Your task to perform on an android device: Go to display settings Image 0: 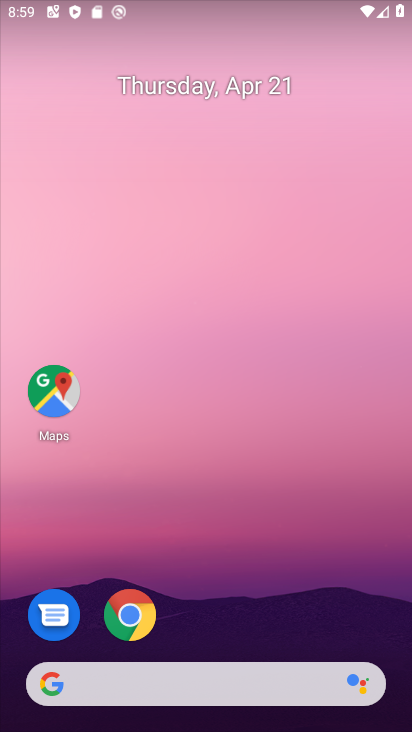
Step 0: drag from (202, 725) to (202, 174)
Your task to perform on an android device: Go to display settings Image 1: 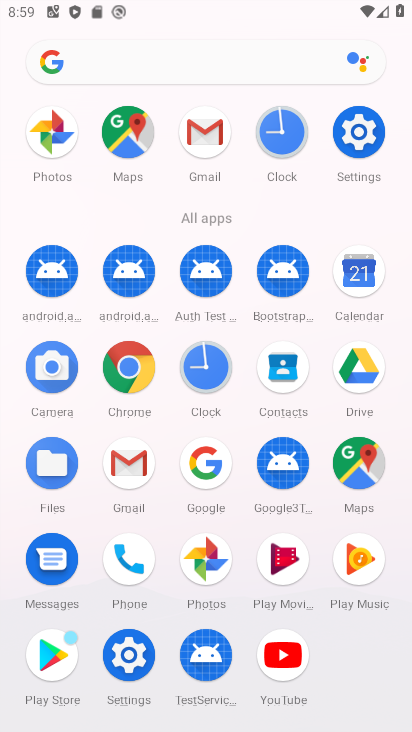
Step 1: click (356, 140)
Your task to perform on an android device: Go to display settings Image 2: 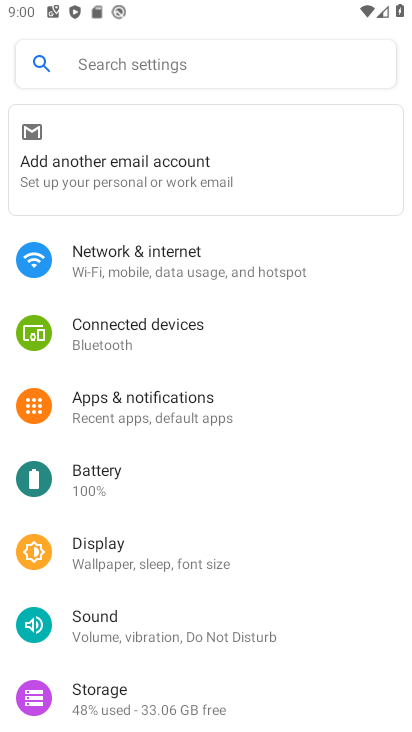
Step 2: click (116, 560)
Your task to perform on an android device: Go to display settings Image 3: 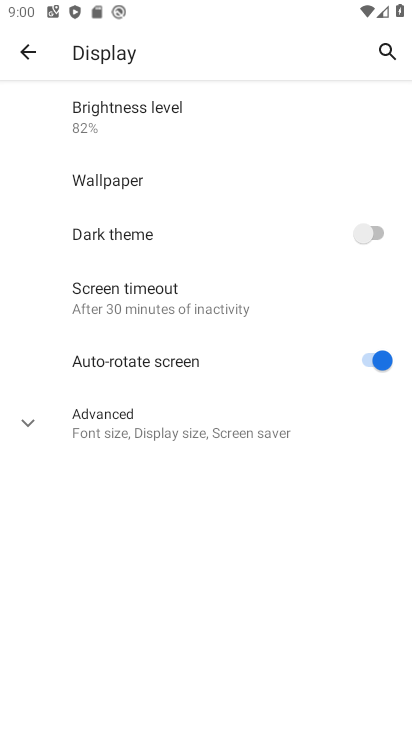
Step 3: task complete